Your task to perform on an android device: uninstall "Google Sheets" Image 0: 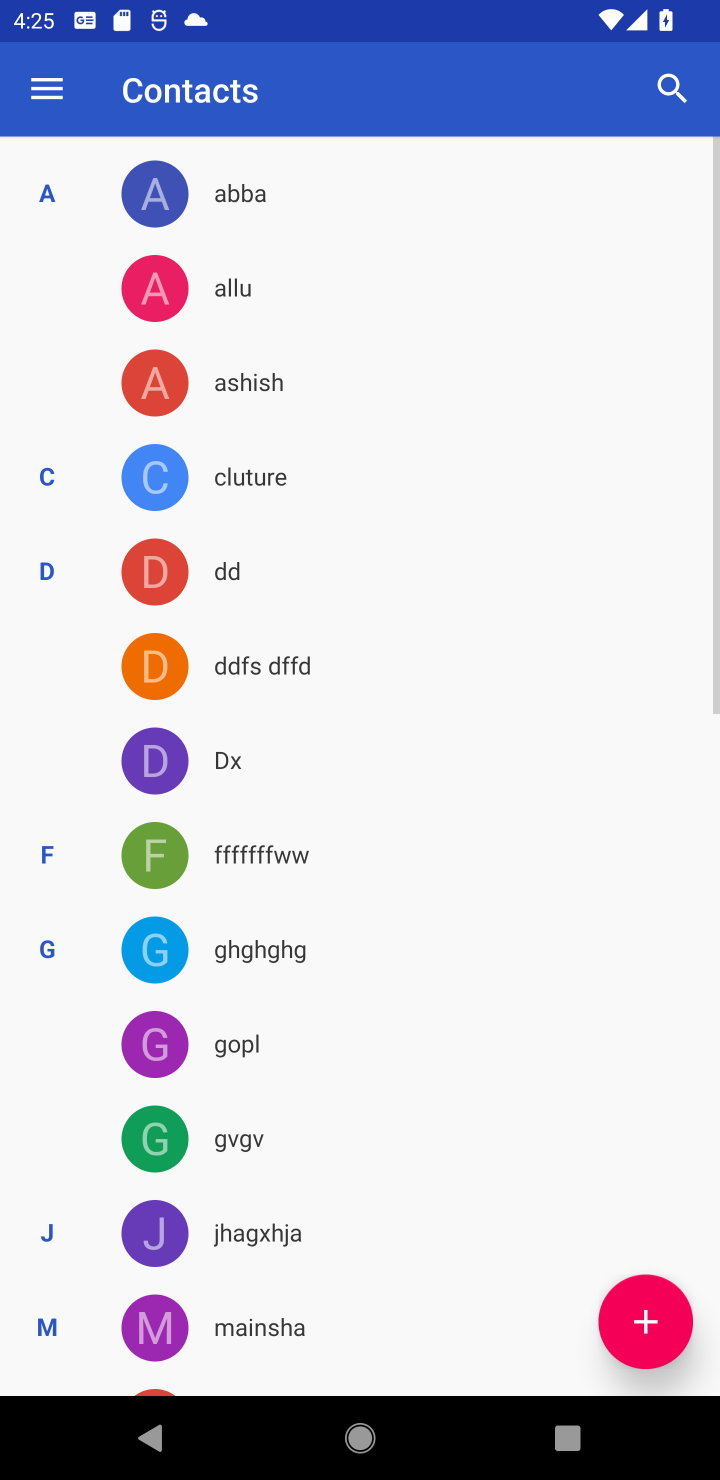
Step 0: press home button
Your task to perform on an android device: uninstall "Google Sheets" Image 1: 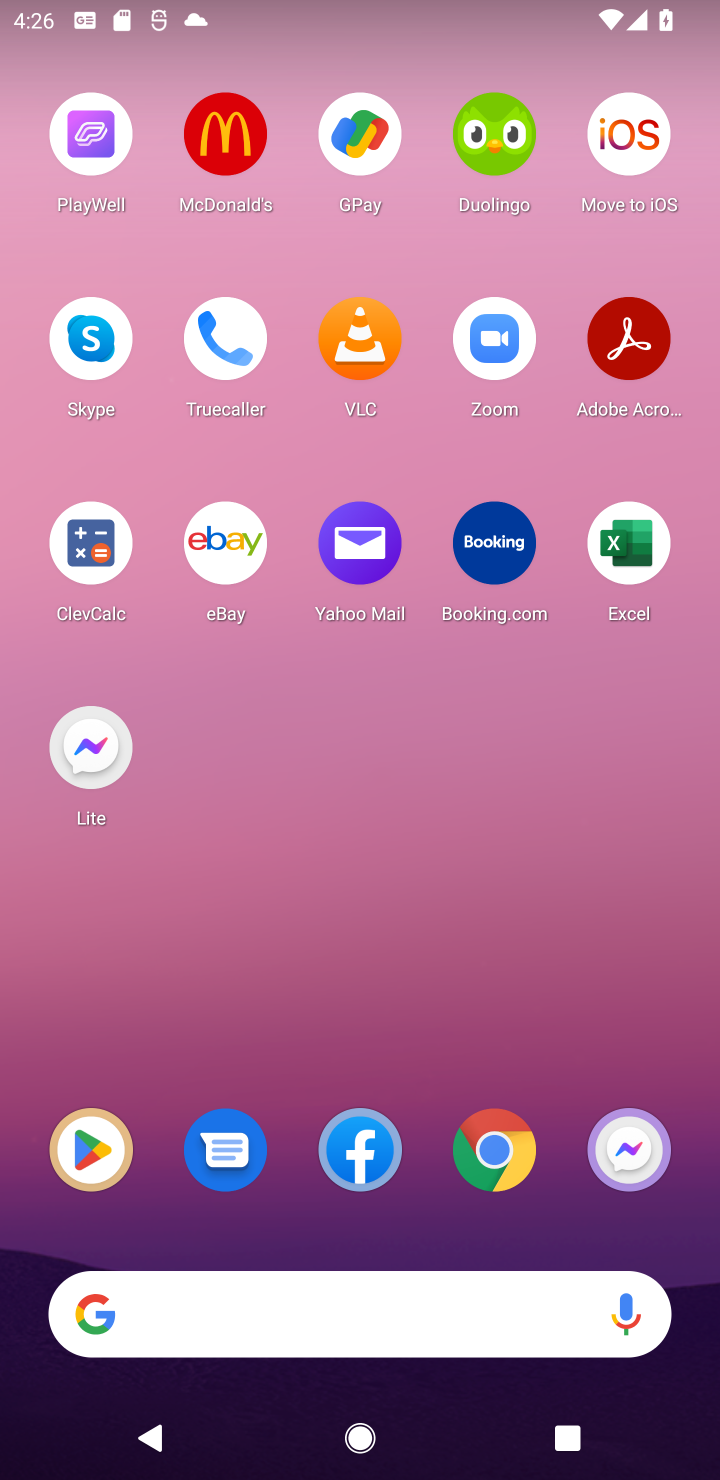
Step 1: click (113, 1188)
Your task to perform on an android device: uninstall "Google Sheets" Image 2: 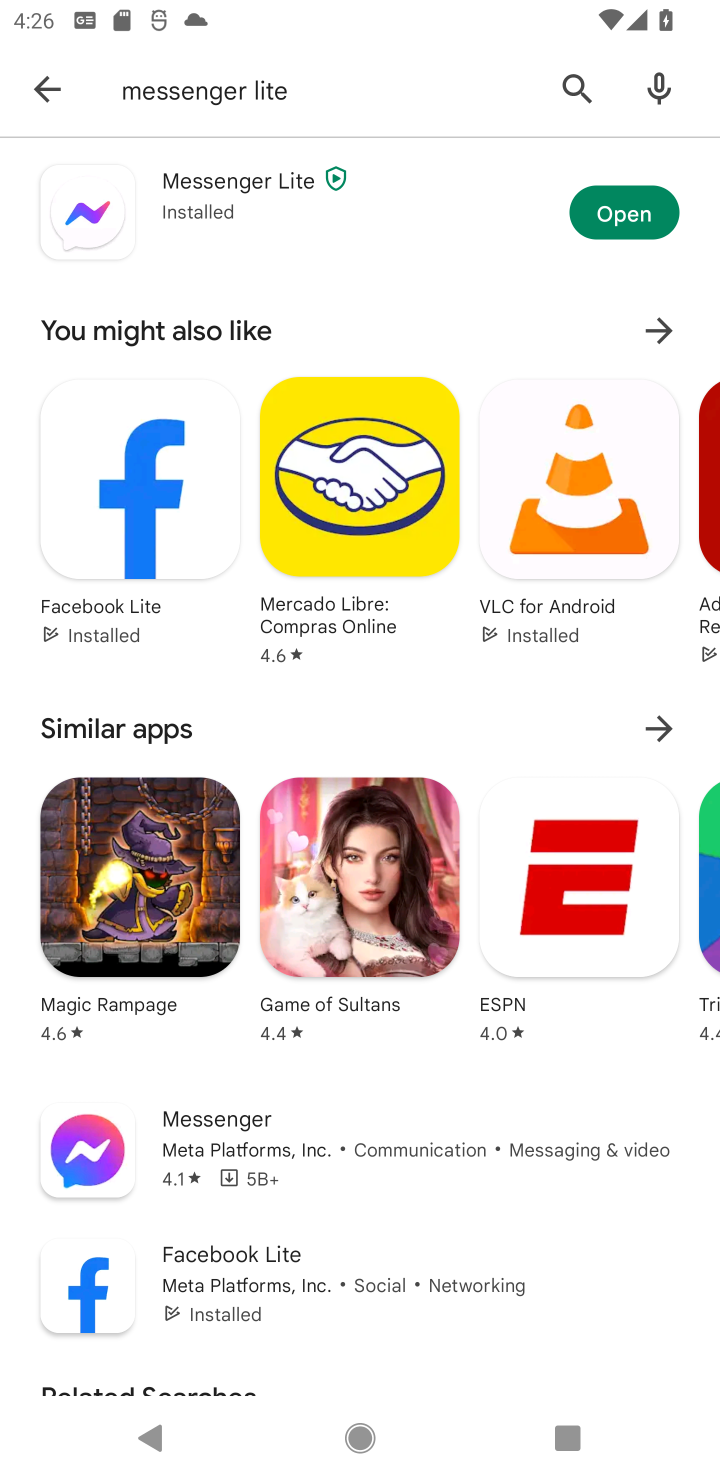
Step 2: click (581, 92)
Your task to perform on an android device: uninstall "Google Sheets" Image 3: 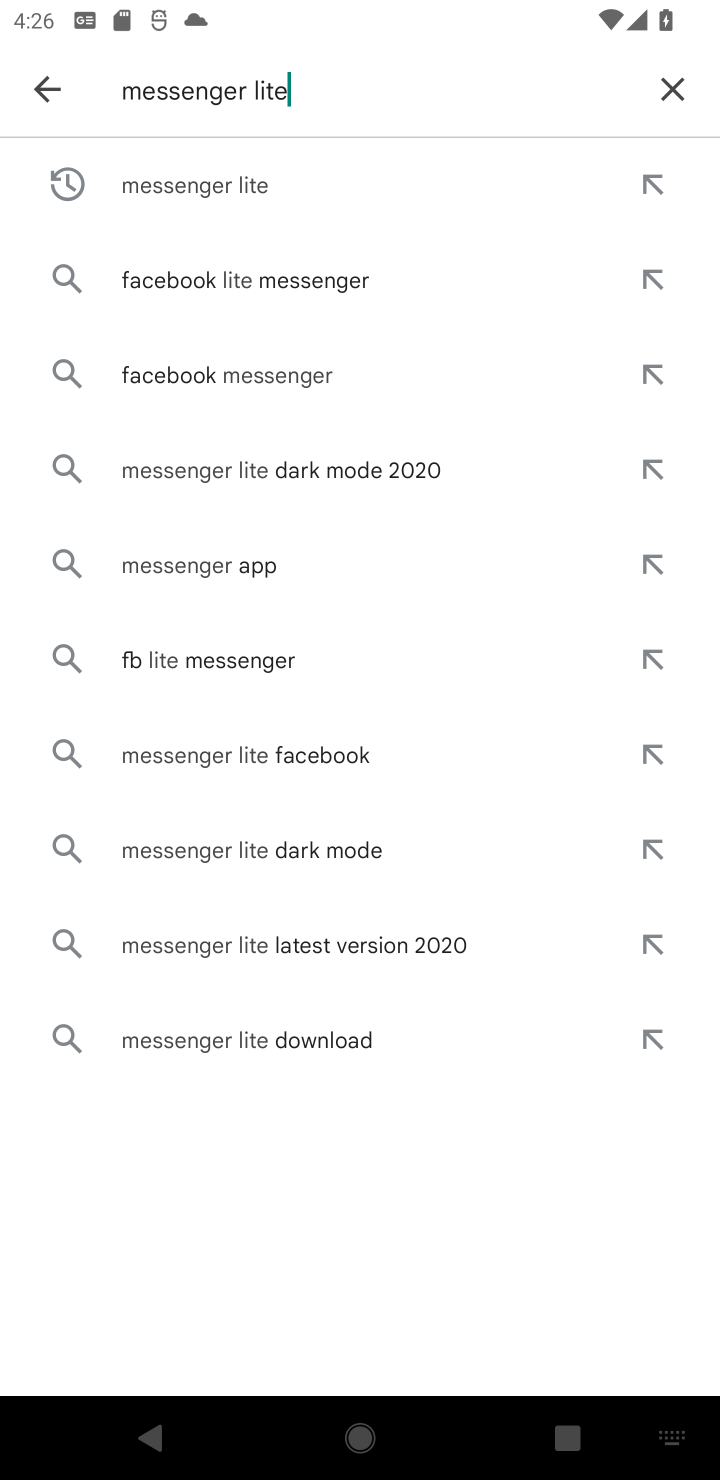
Step 3: click (661, 84)
Your task to perform on an android device: uninstall "Google Sheets" Image 4: 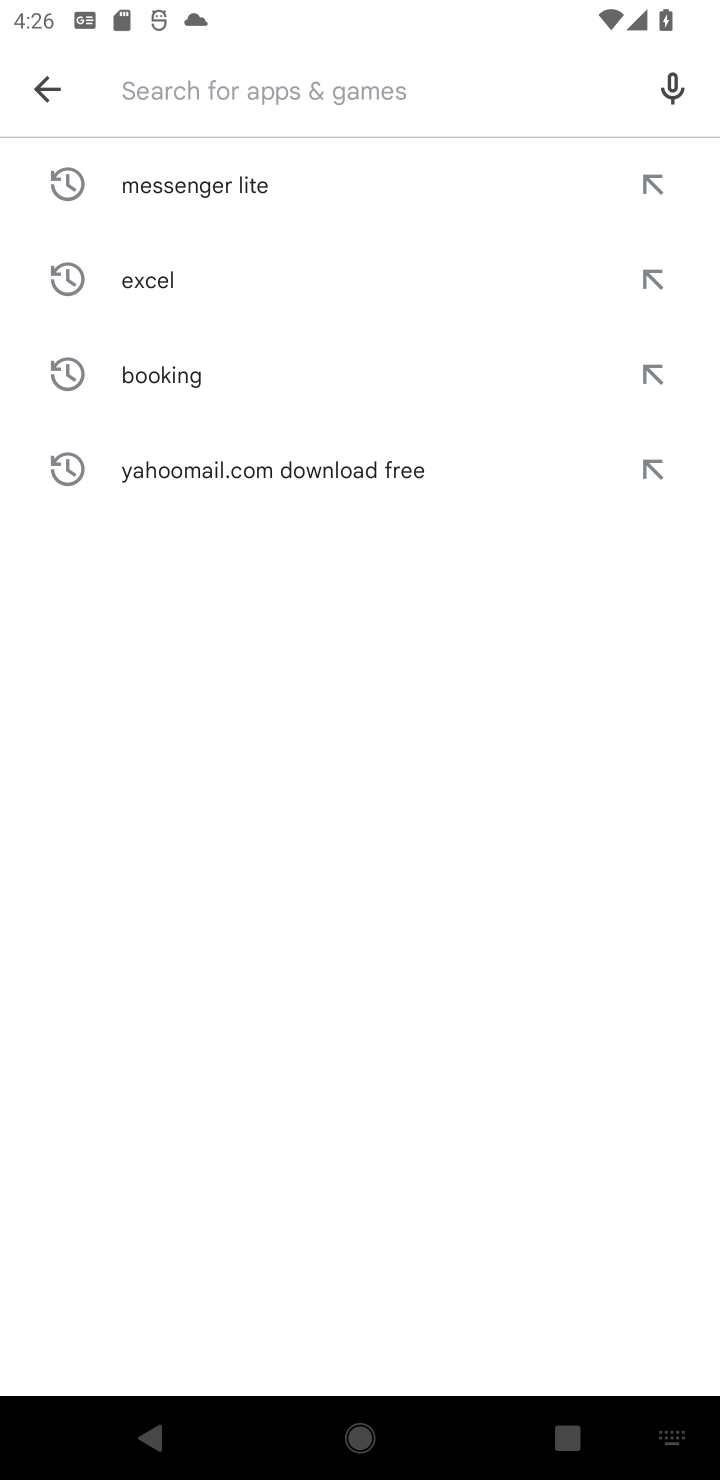
Step 4: type "google sheet"
Your task to perform on an android device: uninstall "Google Sheets" Image 5: 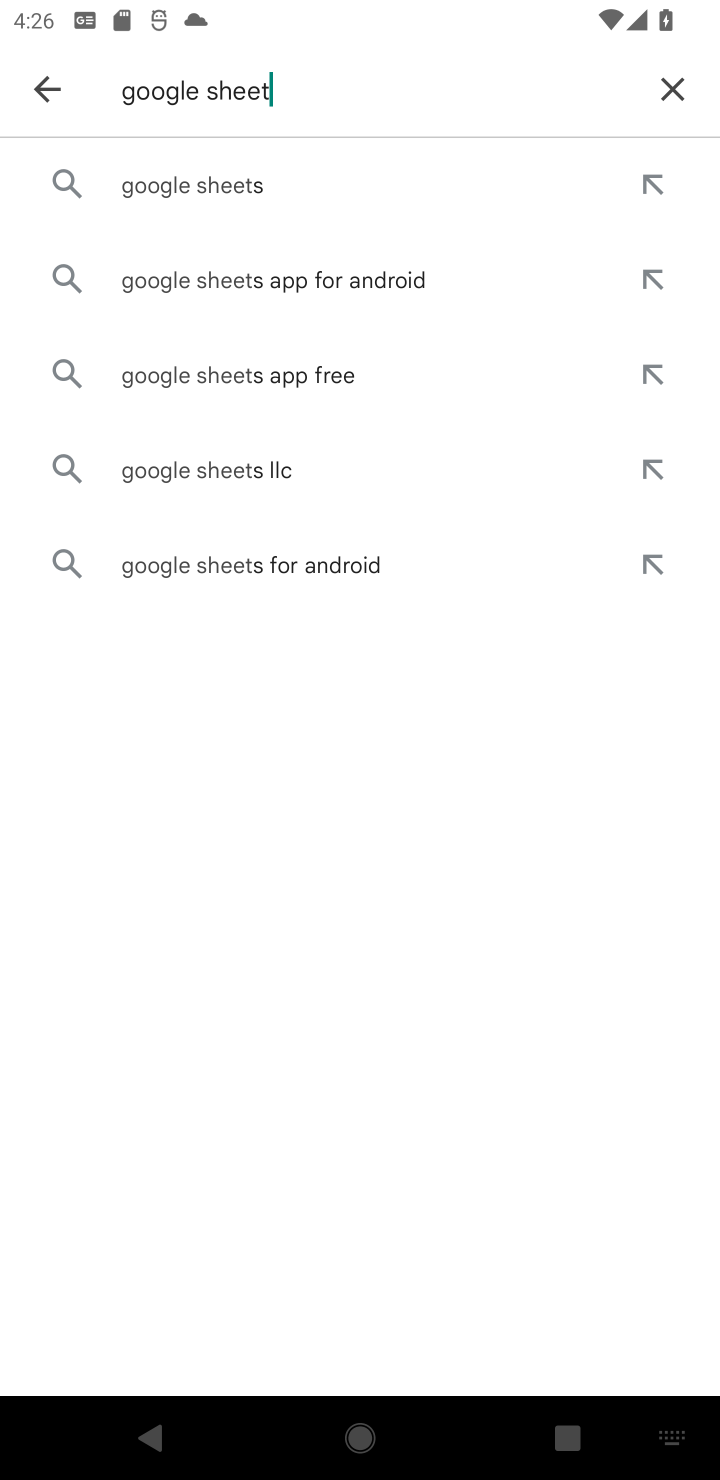
Step 5: click (197, 217)
Your task to perform on an android device: uninstall "Google Sheets" Image 6: 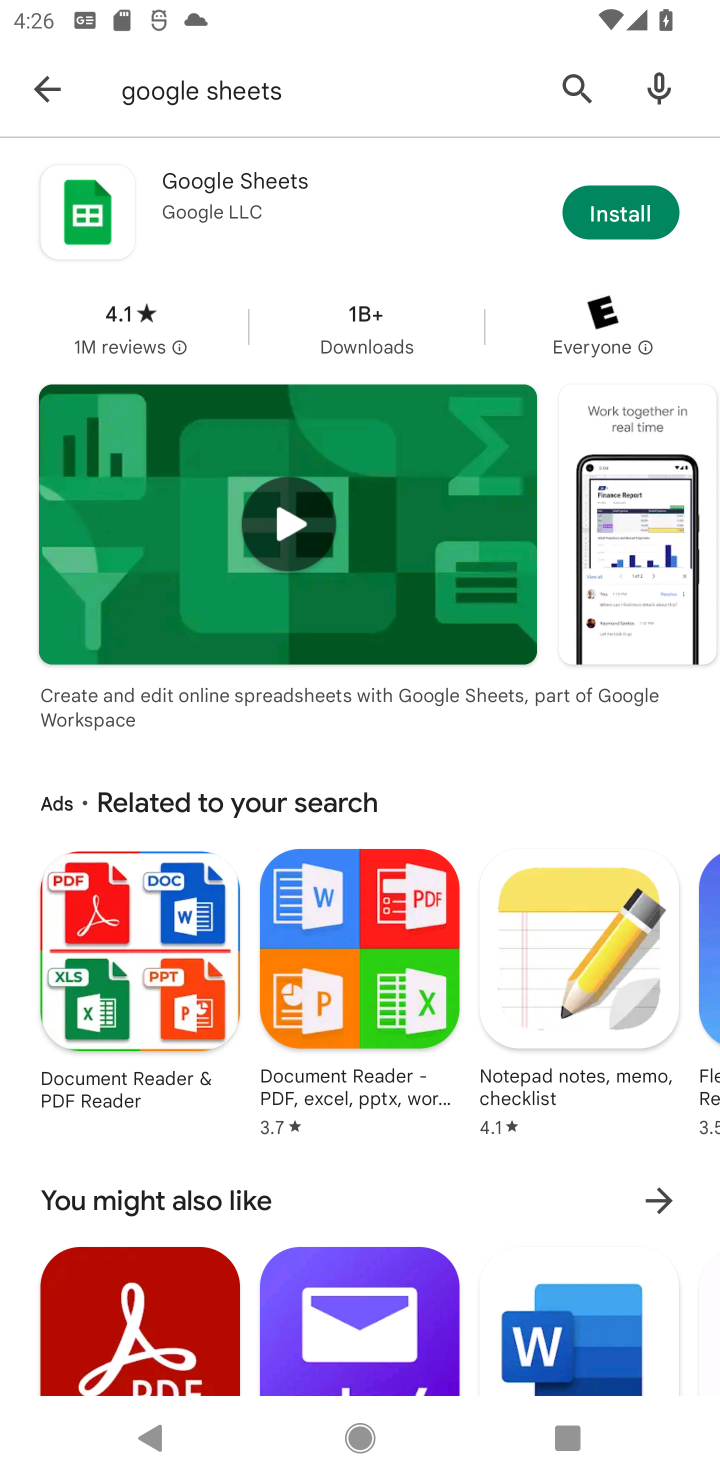
Step 6: click (628, 208)
Your task to perform on an android device: uninstall "Google Sheets" Image 7: 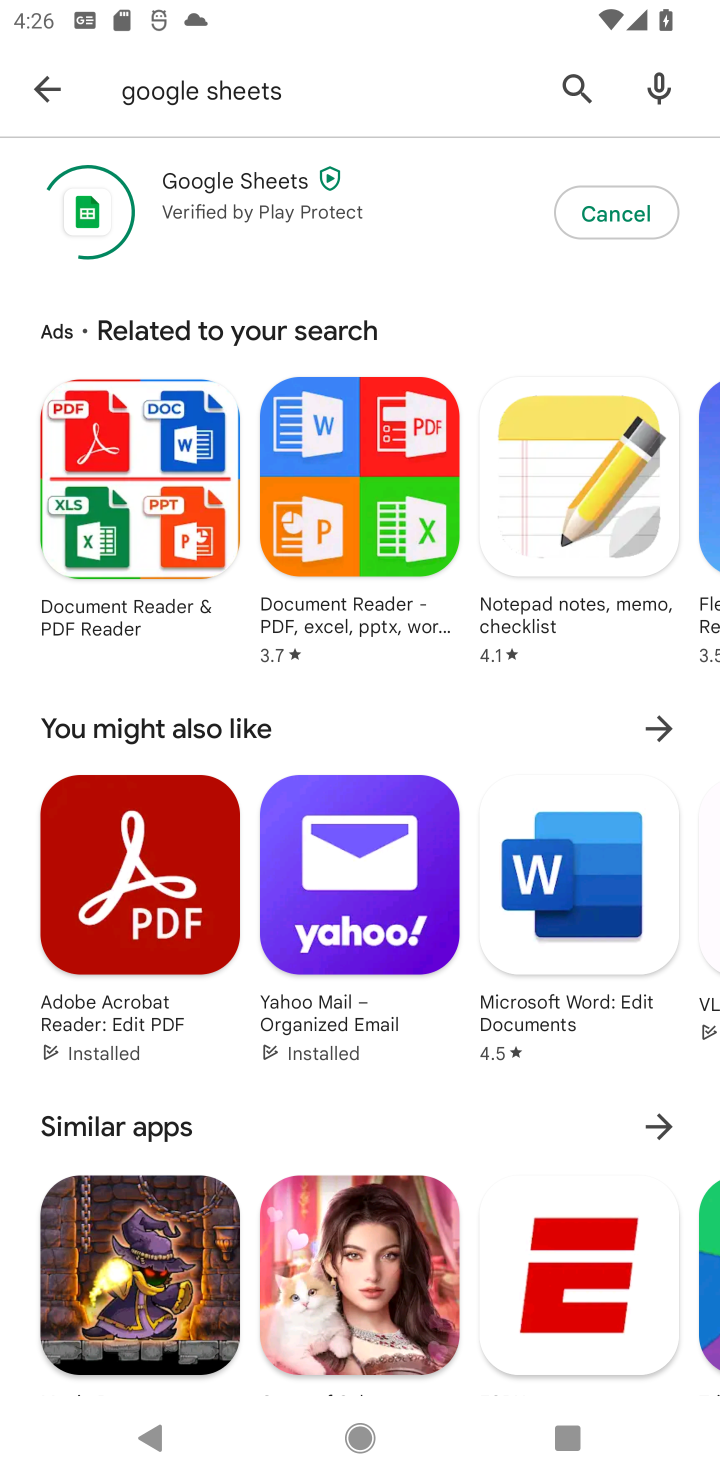
Step 7: task complete